Your task to perform on an android device: Go to eBay Image 0: 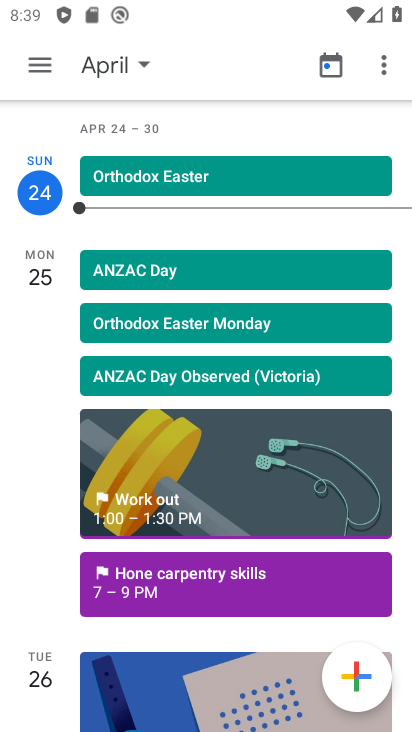
Step 0: press back button
Your task to perform on an android device: Go to eBay Image 1: 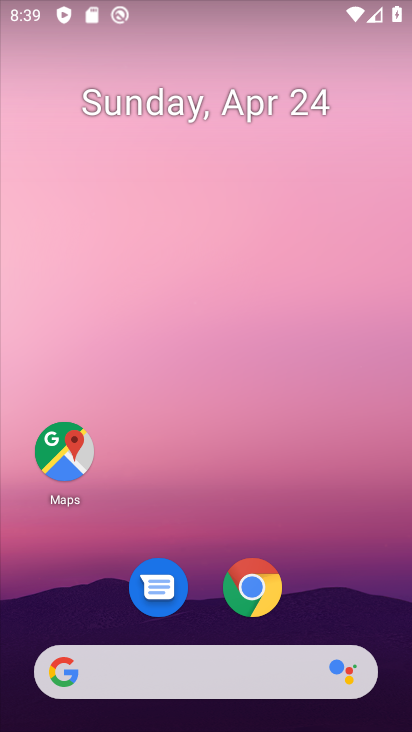
Step 1: click (263, 586)
Your task to perform on an android device: Go to eBay Image 2: 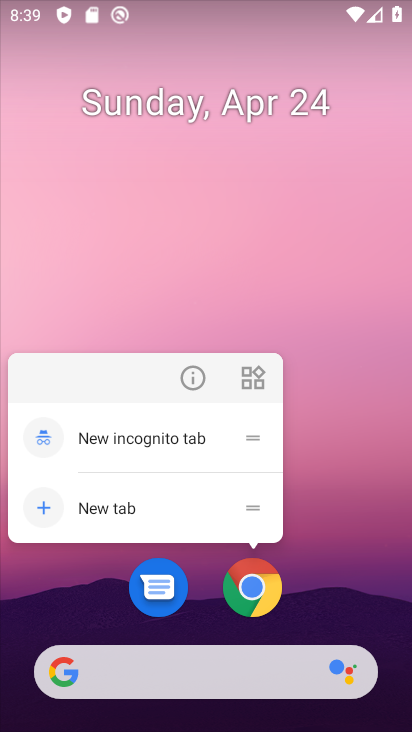
Step 2: click (258, 592)
Your task to perform on an android device: Go to eBay Image 3: 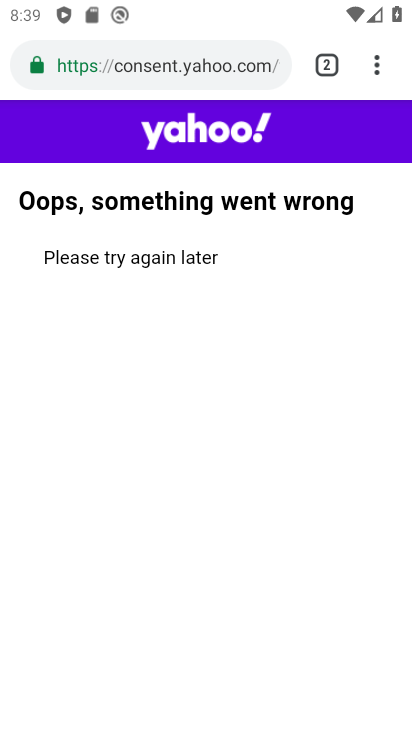
Step 3: click (322, 58)
Your task to perform on an android device: Go to eBay Image 4: 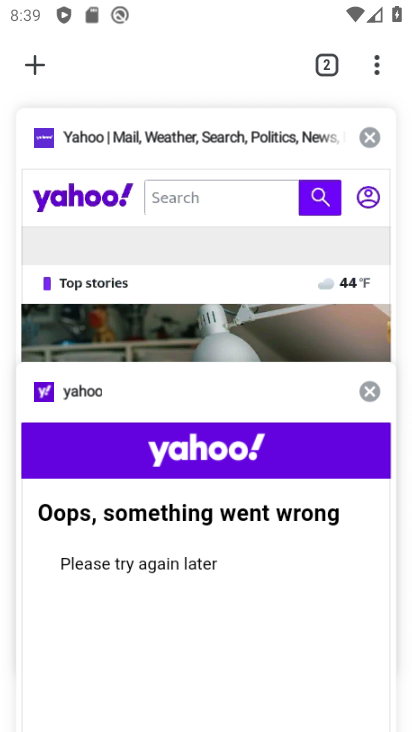
Step 4: click (30, 61)
Your task to perform on an android device: Go to eBay Image 5: 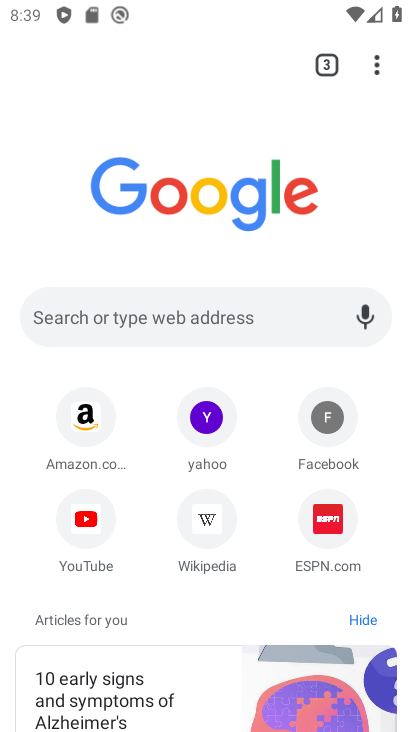
Step 5: click (107, 312)
Your task to perform on an android device: Go to eBay Image 6: 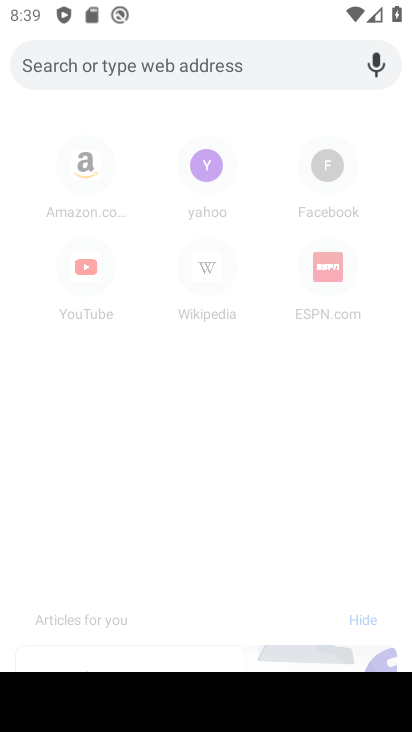
Step 6: type "ebay"
Your task to perform on an android device: Go to eBay Image 7: 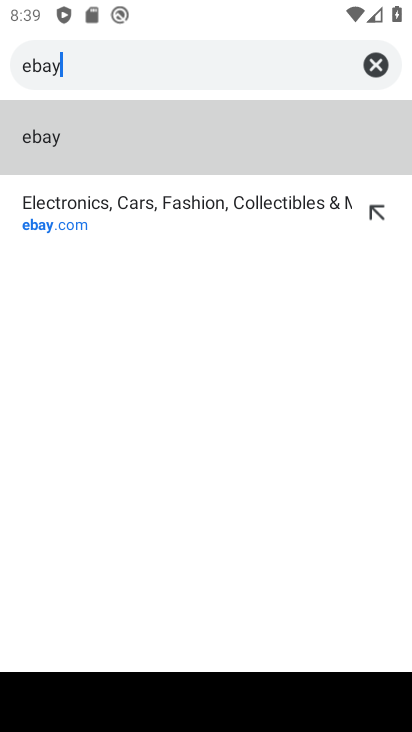
Step 7: click (128, 137)
Your task to perform on an android device: Go to eBay Image 8: 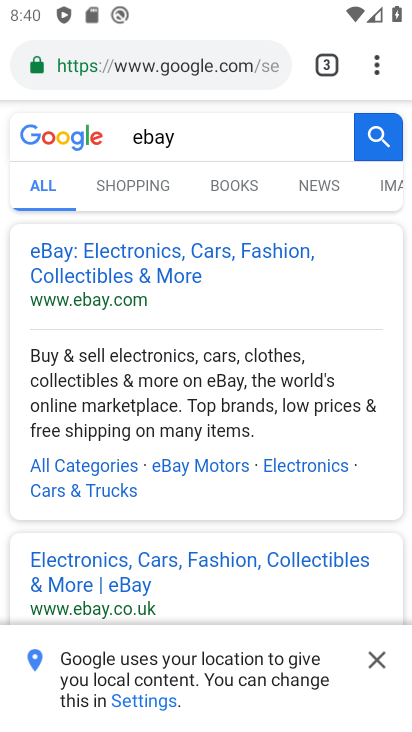
Step 8: click (92, 254)
Your task to perform on an android device: Go to eBay Image 9: 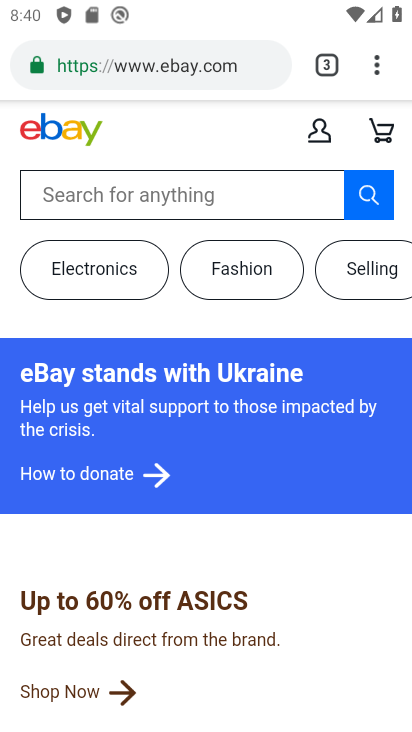
Step 9: task complete